Your task to perform on an android device: turn on showing notifications on the lock screen Image 0: 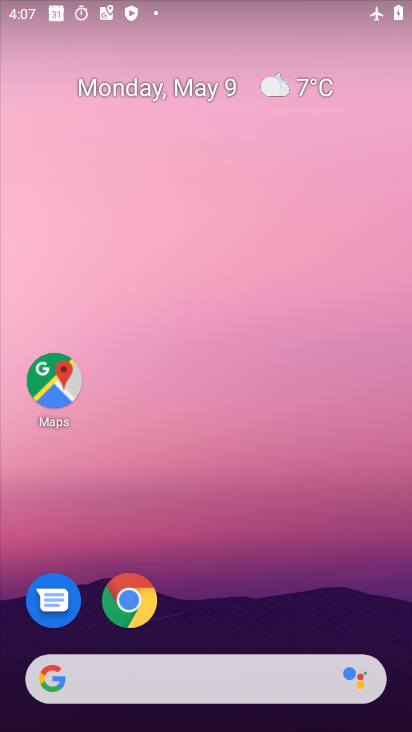
Step 0: drag from (296, 620) to (253, 135)
Your task to perform on an android device: turn on showing notifications on the lock screen Image 1: 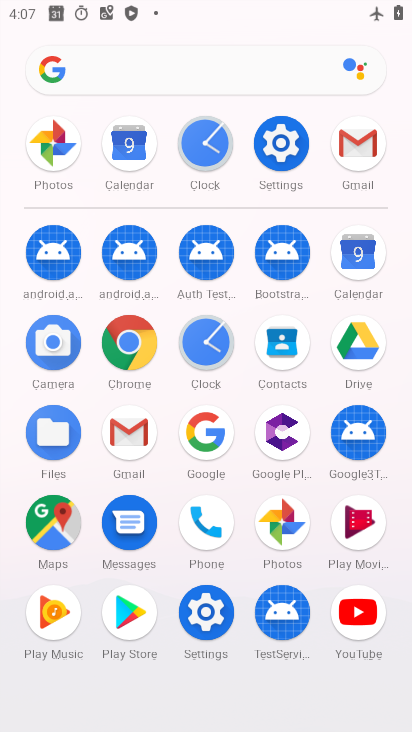
Step 1: click (261, 137)
Your task to perform on an android device: turn on showing notifications on the lock screen Image 2: 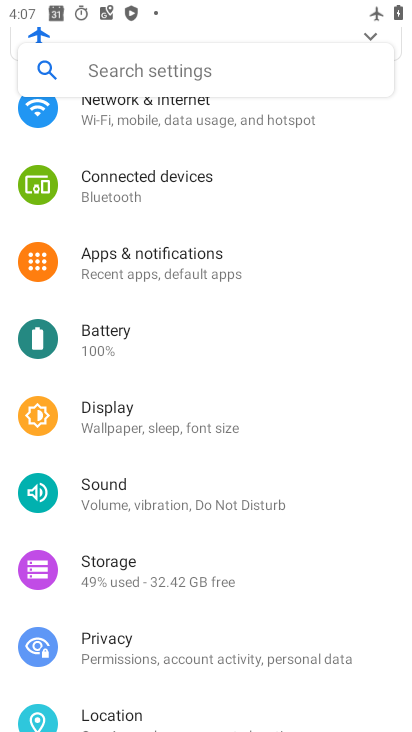
Step 2: drag from (260, 137) to (211, 416)
Your task to perform on an android device: turn on showing notifications on the lock screen Image 3: 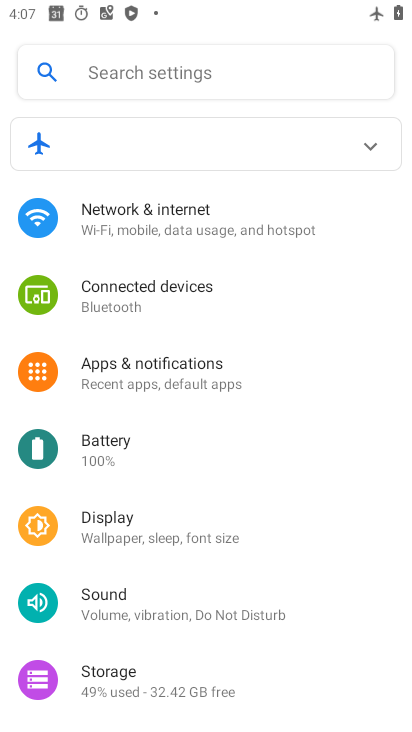
Step 3: click (190, 364)
Your task to perform on an android device: turn on showing notifications on the lock screen Image 4: 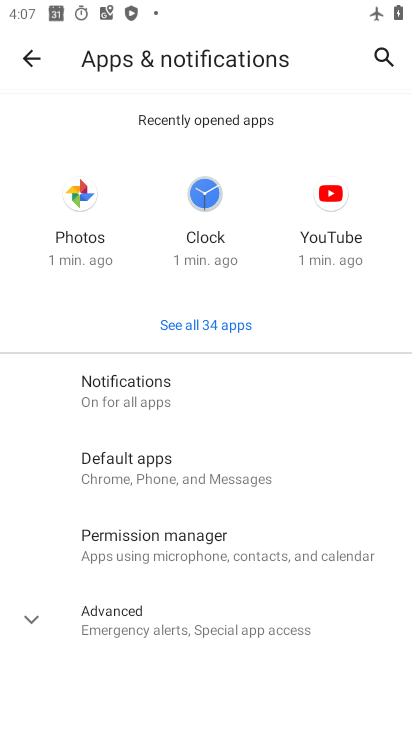
Step 4: click (169, 377)
Your task to perform on an android device: turn on showing notifications on the lock screen Image 5: 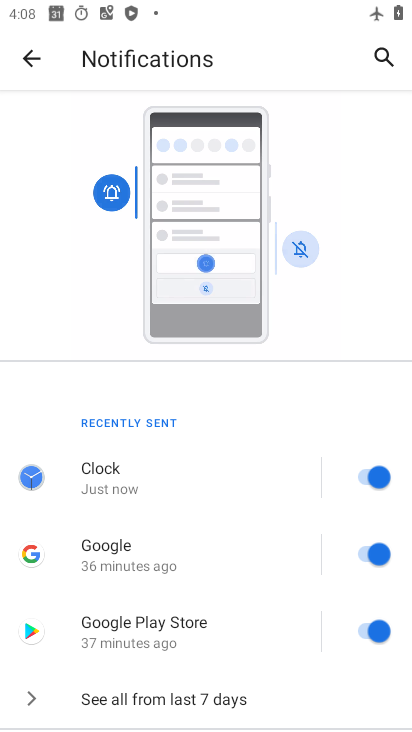
Step 5: drag from (200, 589) to (254, 173)
Your task to perform on an android device: turn on showing notifications on the lock screen Image 6: 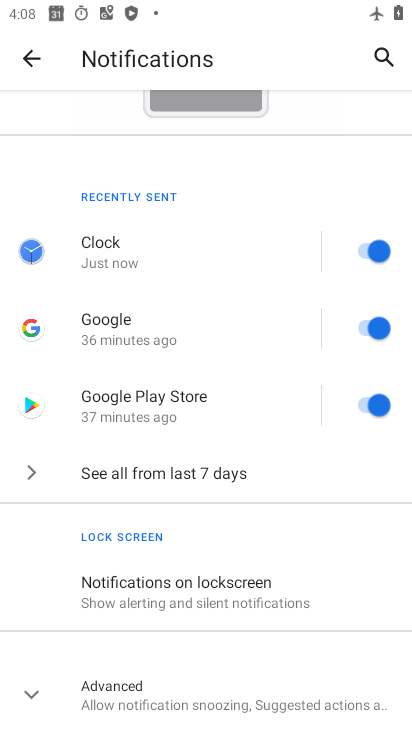
Step 6: click (190, 591)
Your task to perform on an android device: turn on showing notifications on the lock screen Image 7: 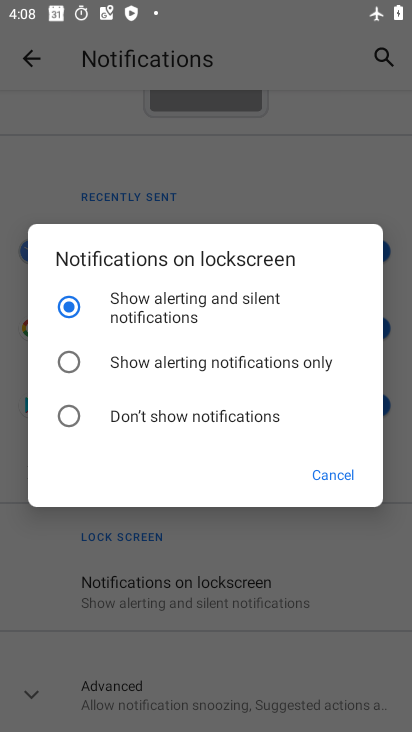
Step 7: click (207, 382)
Your task to perform on an android device: turn on showing notifications on the lock screen Image 8: 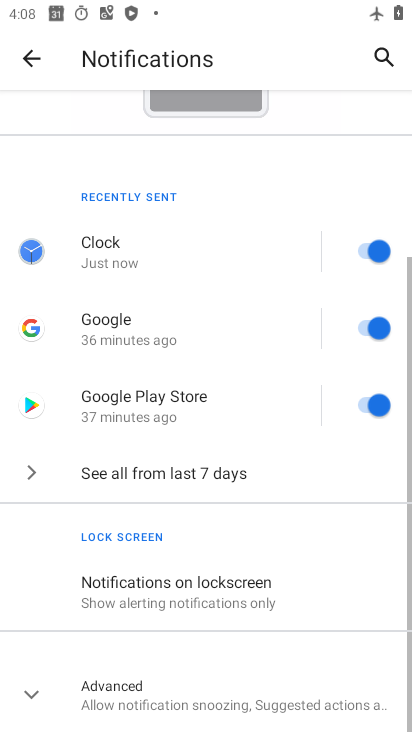
Step 8: task complete